Your task to perform on an android device: What's on my calendar tomorrow? Image 0: 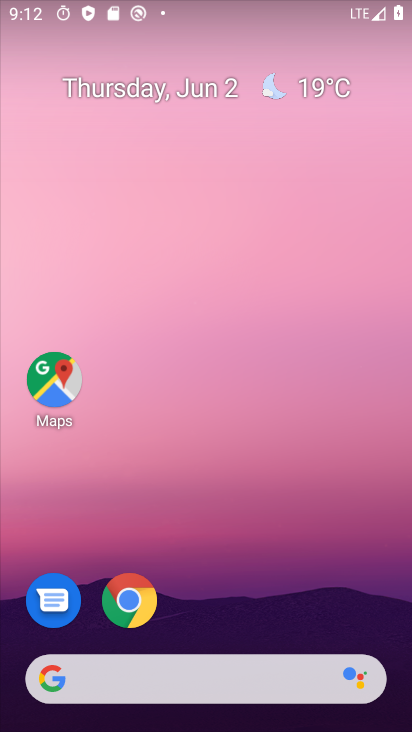
Step 0: drag from (228, 621) to (240, 283)
Your task to perform on an android device: What's on my calendar tomorrow? Image 1: 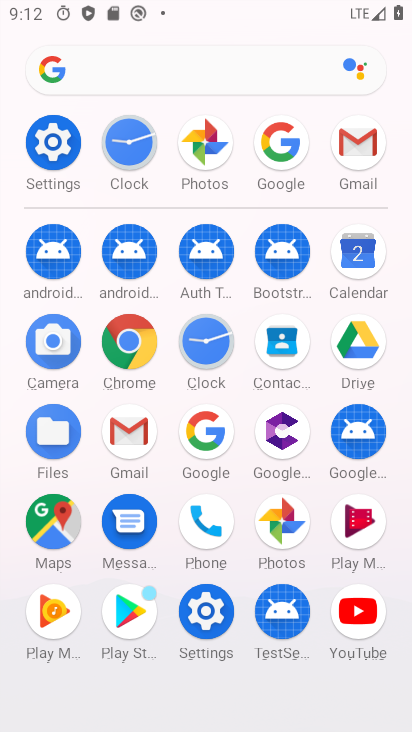
Step 1: click (350, 264)
Your task to perform on an android device: What's on my calendar tomorrow? Image 2: 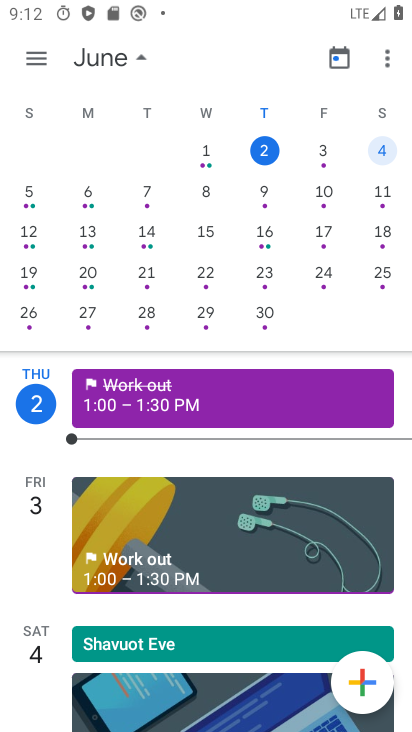
Step 2: click (322, 154)
Your task to perform on an android device: What's on my calendar tomorrow? Image 3: 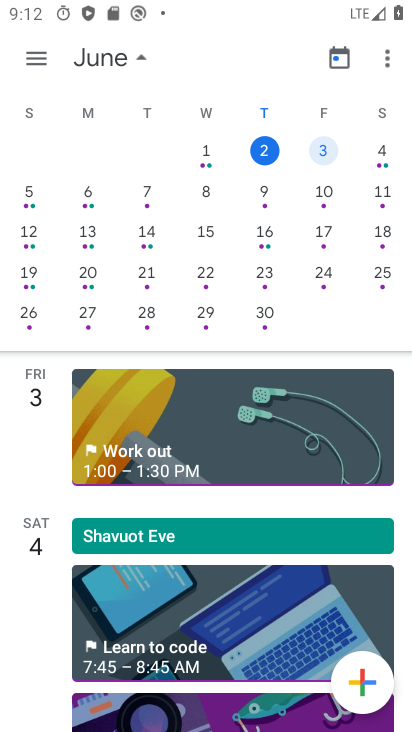
Step 3: task complete